Your task to perform on an android device: Go to Yahoo.com Image 0: 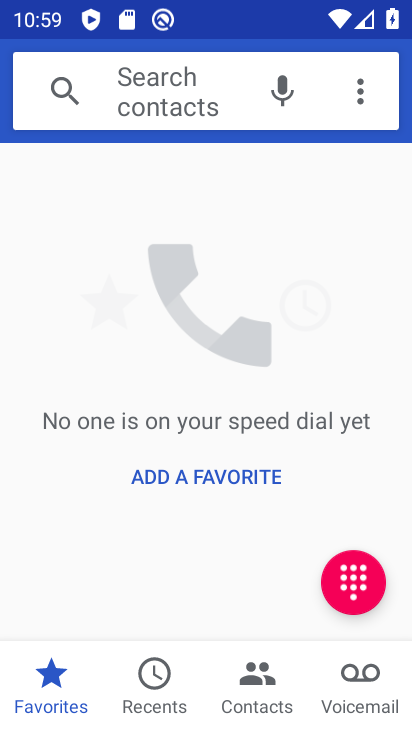
Step 0: press home button
Your task to perform on an android device: Go to Yahoo.com Image 1: 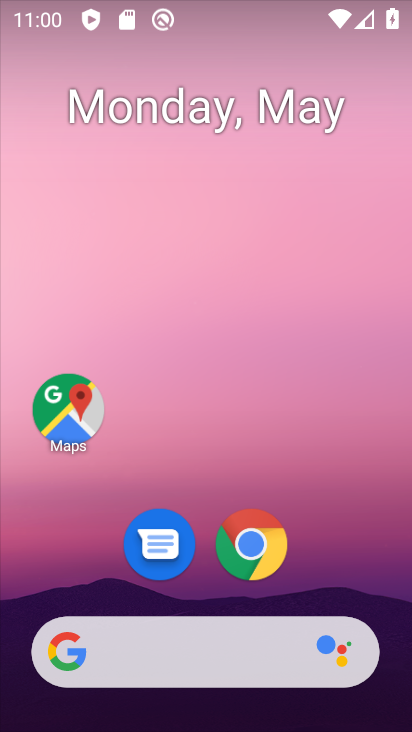
Step 1: click (261, 552)
Your task to perform on an android device: Go to Yahoo.com Image 2: 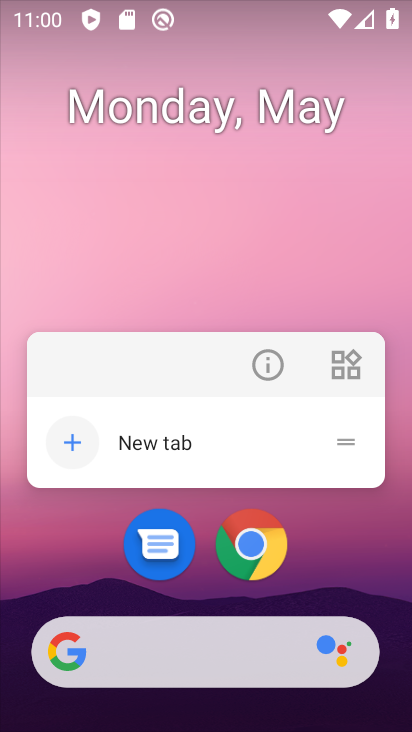
Step 2: click (286, 549)
Your task to perform on an android device: Go to Yahoo.com Image 3: 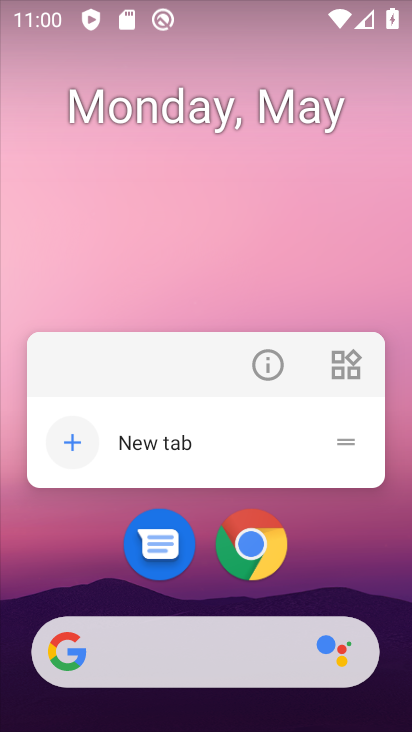
Step 3: click (272, 549)
Your task to perform on an android device: Go to Yahoo.com Image 4: 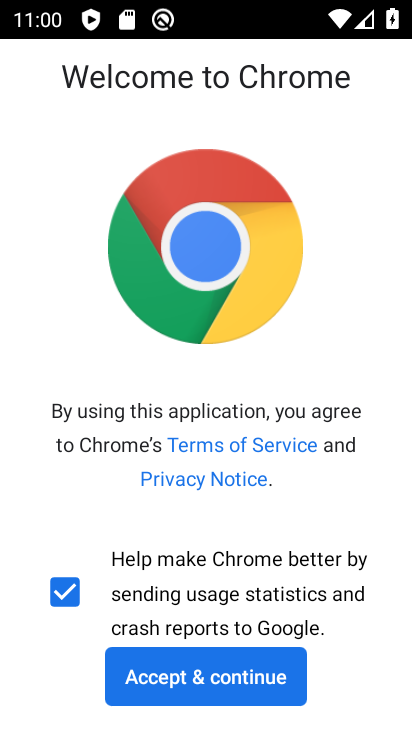
Step 4: click (264, 660)
Your task to perform on an android device: Go to Yahoo.com Image 5: 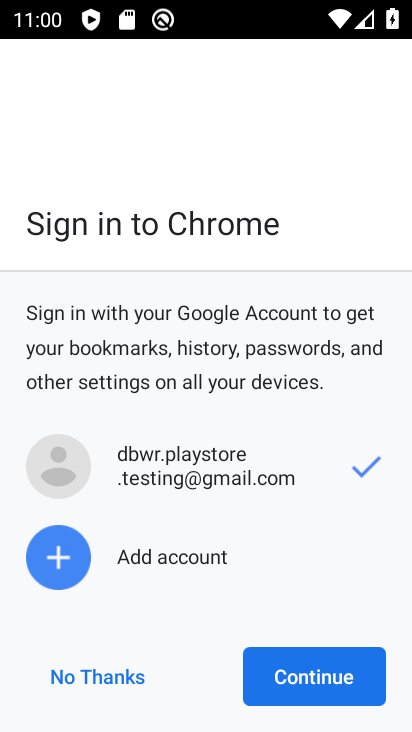
Step 5: click (280, 690)
Your task to perform on an android device: Go to Yahoo.com Image 6: 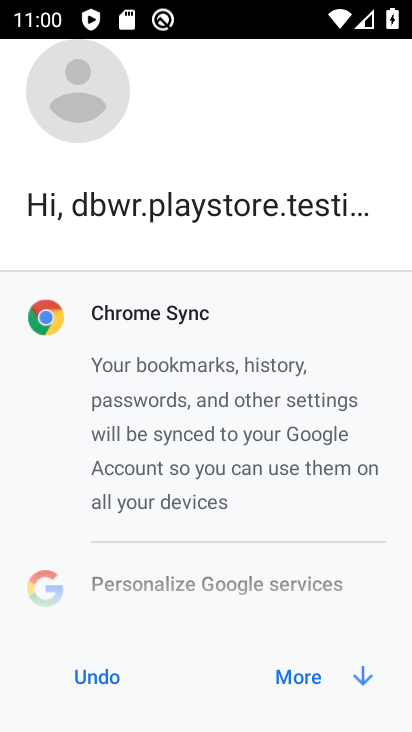
Step 6: click (311, 698)
Your task to perform on an android device: Go to Yahoo.com Image 7: 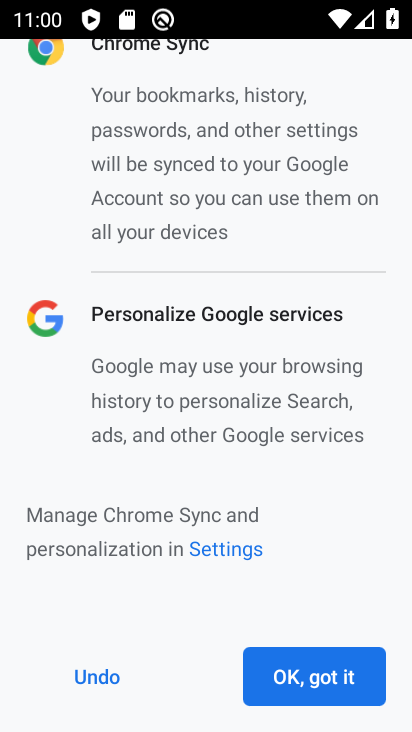
Step 7: click (347, 692)
Your task to perform on an android device: Go to Yahoo.com Image 8: 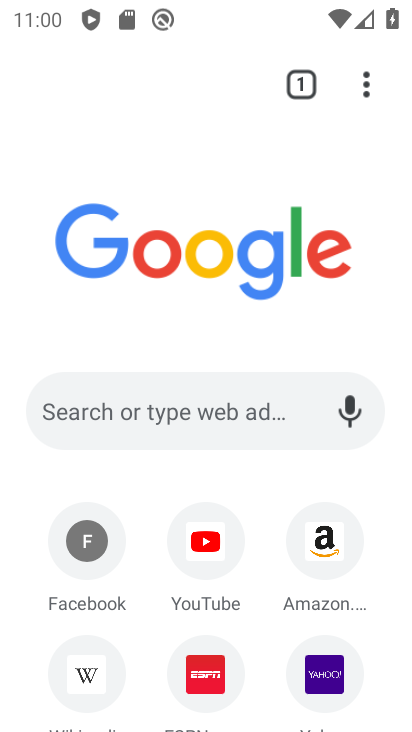
Step 8: click (337, 682)
Your task to perform on an android device: Go to Yahoo.com Image 9: 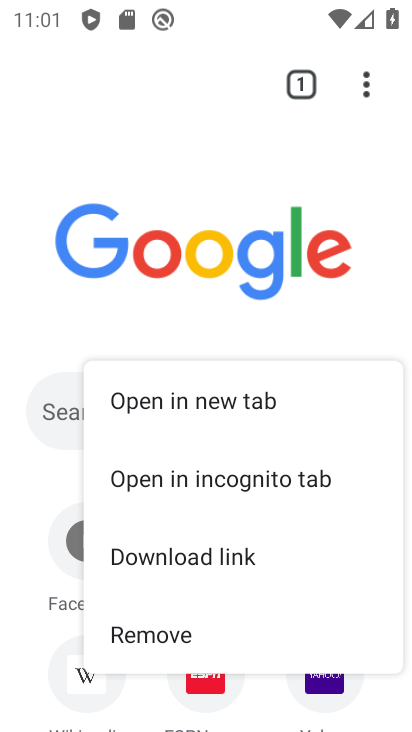
Step 9: click (335, 706)
Your task to perform on an android device: Go to Yahoo.com Image 10: 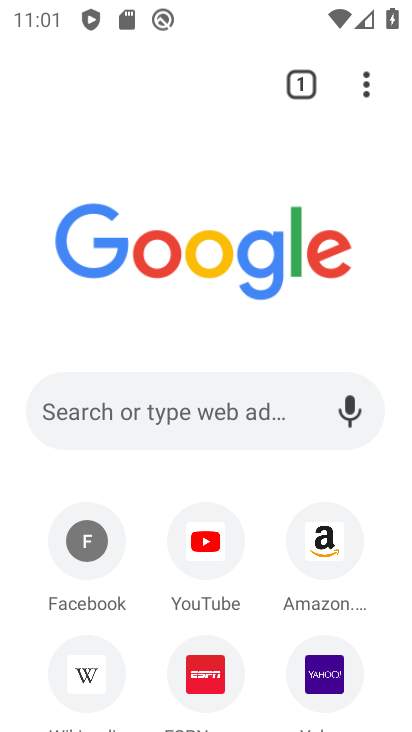
Step 10: click (331, 702)
Your task to perform on an android device: Go to Yahoo.com Image 11: 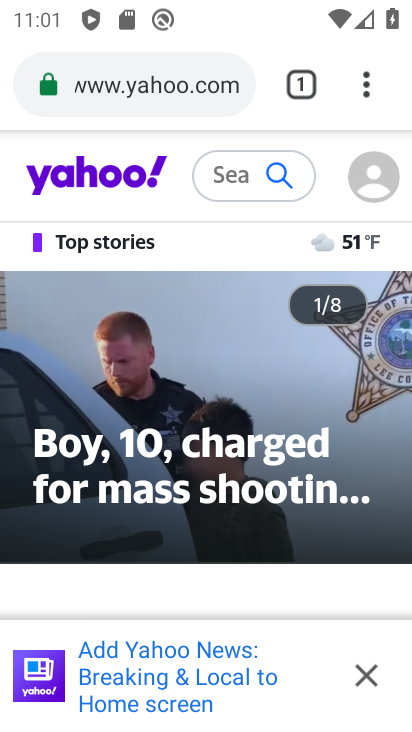
Step 11: task complete